Your task to perform on an android device: Open Google Image 0: 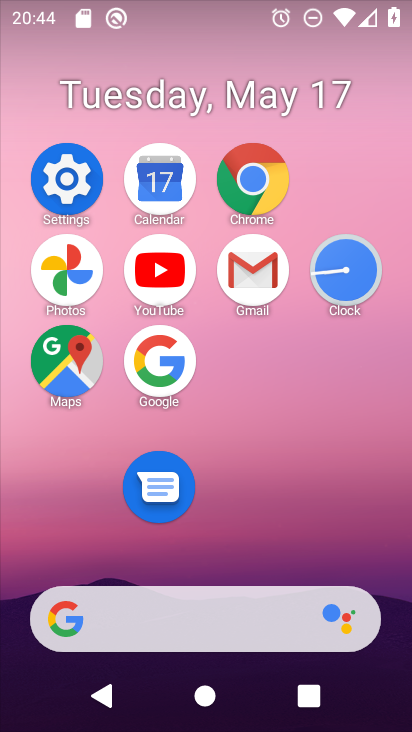
Step 0: click (156, 372)
Your task to perform on an android device: Open Google Image 1: 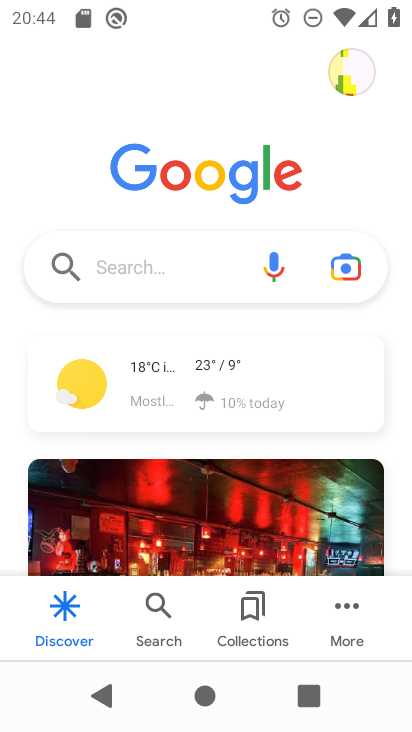
Step 1: task complete